Your task to perform on an android device: remove spam from my inbox in the gmail app Image 0: 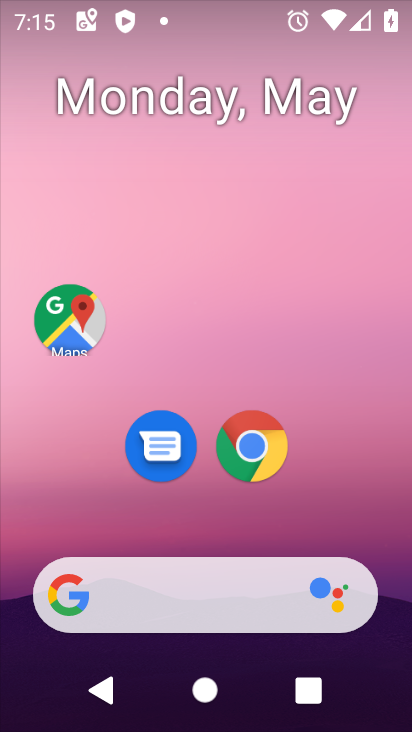
Step 0: drag from (326, 497) to (214, 67)
Your task to perform on an android device: remove spam from my inbox in the gmail app Image 1: 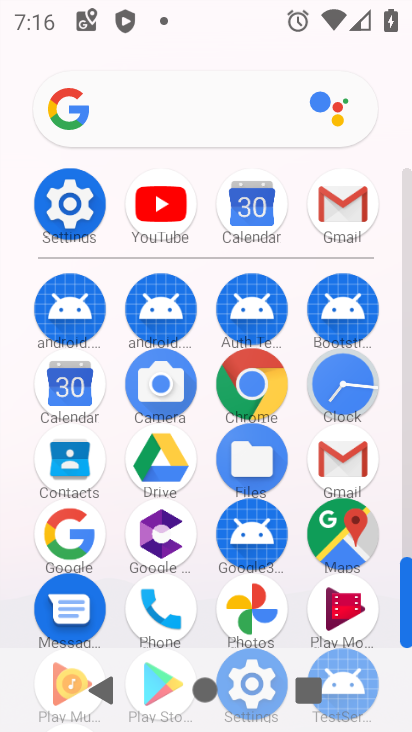
Step 1: click (331, 455)
Your task to perform on an android device: remove spam from my inbox in the gmail app Image 2: 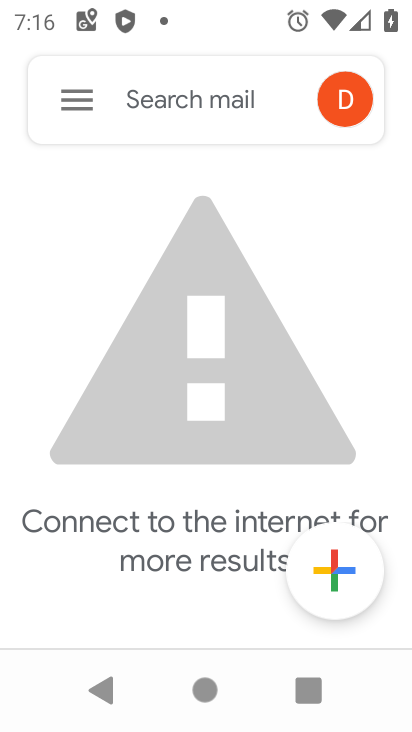
Step 2: click (72, 93)
Your task to perform on an android device: remove spam from my inbox in the gmail app Image 3: 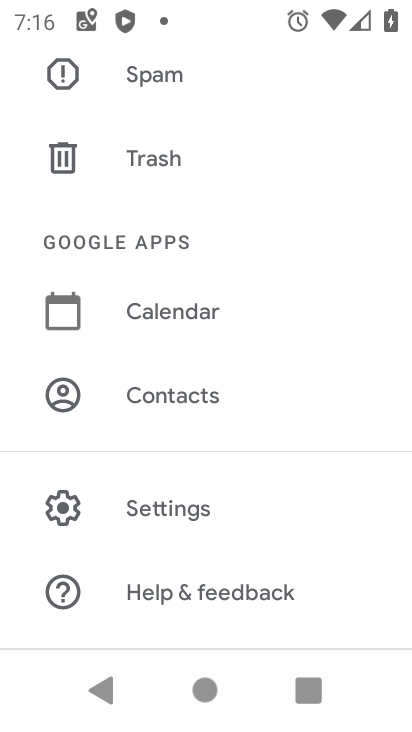
Step 3: click (161, 75)
Your task to perform on an android device: remove spam from my inbox in the gmail app Image 4: 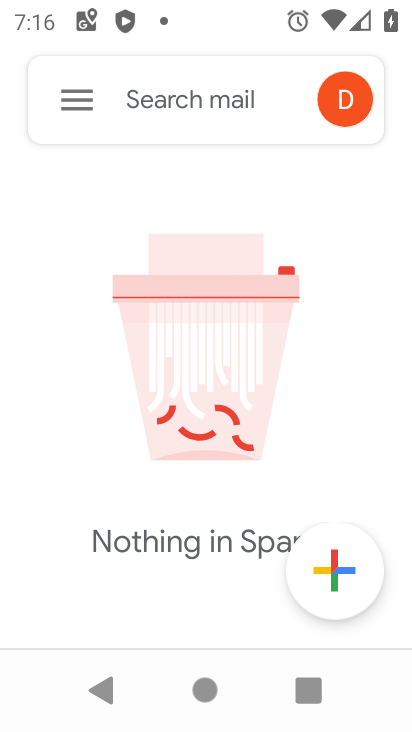
Step 4: task complete